Your task to perform on an android device: turn off location Image 0: 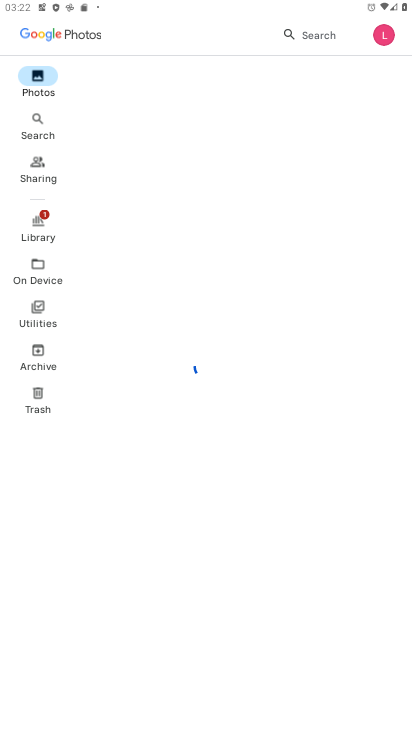
Step 0: press home button
Your task to perform on an android device: turn off location Image 1: 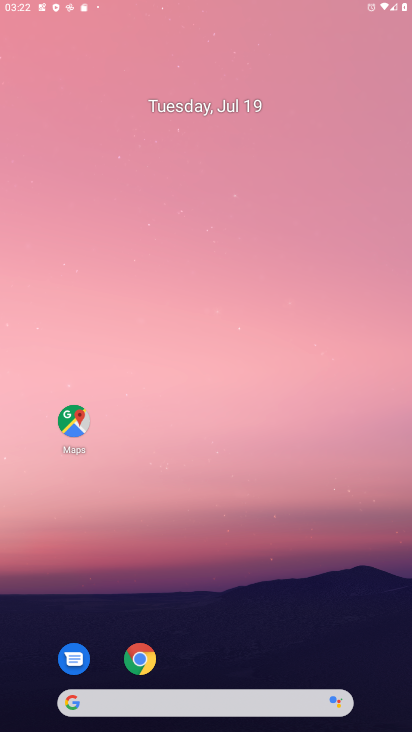
Step 1: drag from (310, 652) to (296, 0)
Your task to perform on an android device: turn off location Image 2: 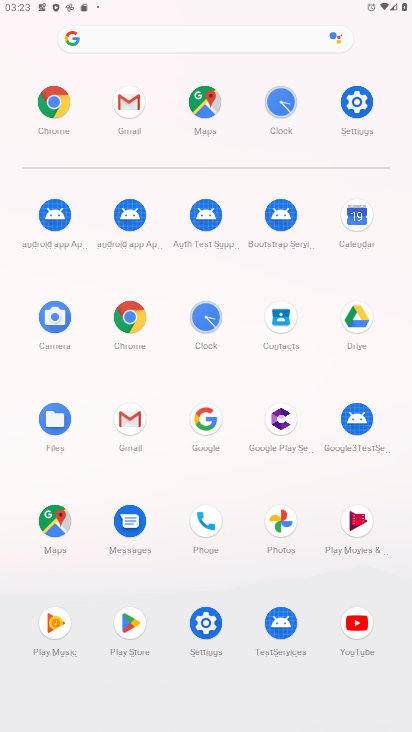
Step 2: click (205, 635)
Your task to perform on an android device: turn off location Image 3: 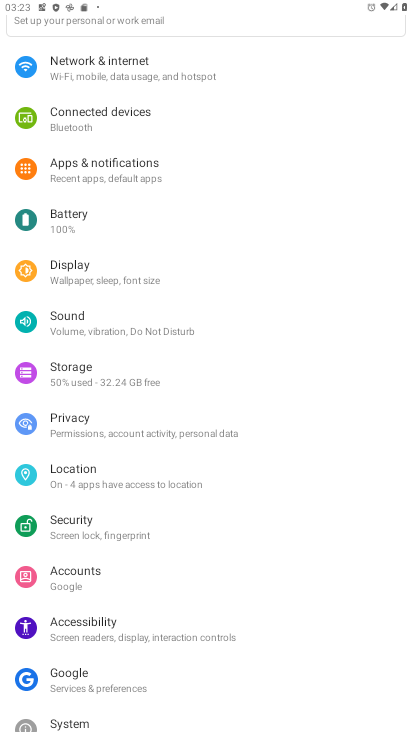
Step 3: click (115, 468)
Your task to perform on an android device: turn off location Image 4: 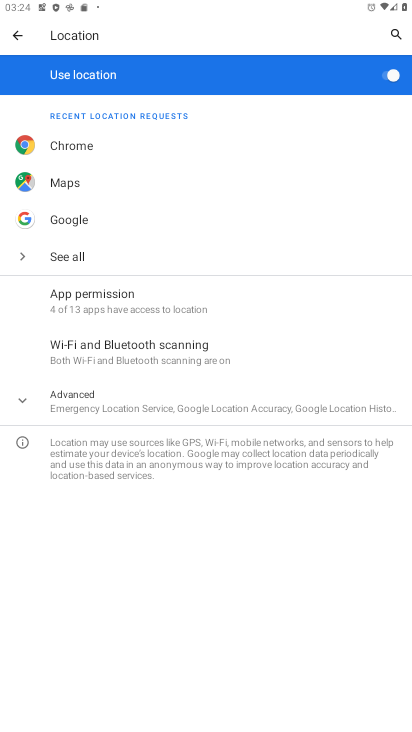
Step 4: click (323, 64)
Your task to perform on an android device: turn off location Image 5: 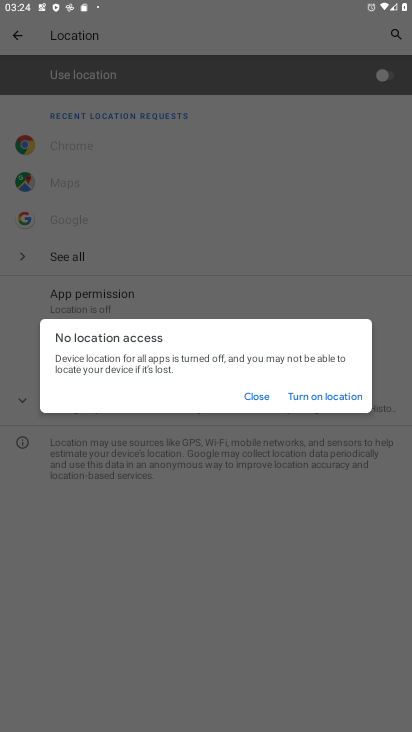
Step 5: click (272, 401)
Your task to perform on an android device: turn off location Image 6: 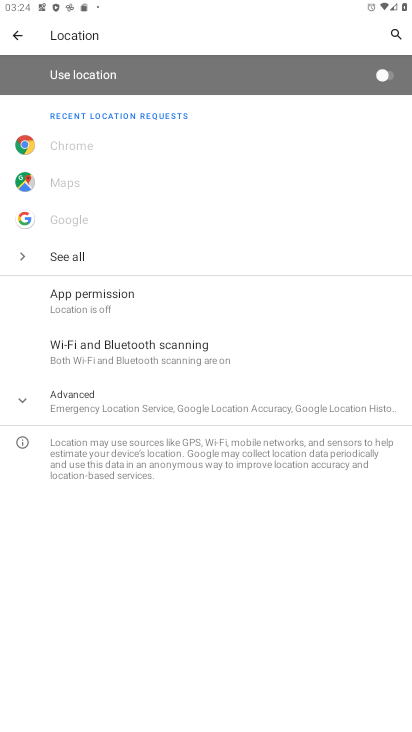
Step 6: task complete